Your task to perform on an android device: What's the weather? Image 0: 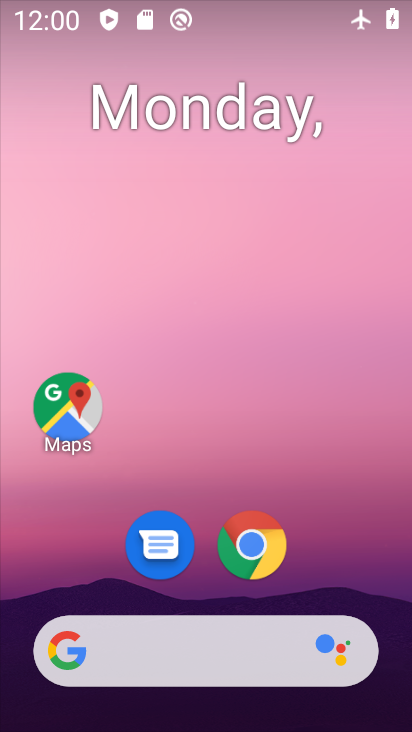
Step 0: click (223, 647)
Your task to perform on an android device: What's the weather? Image 1: 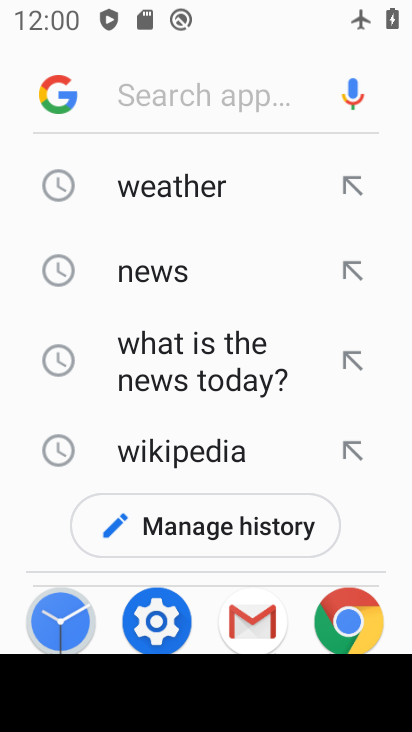
Step 1: click (196, 196)
Your task to perform on an android device: What's the weather? Image 2: 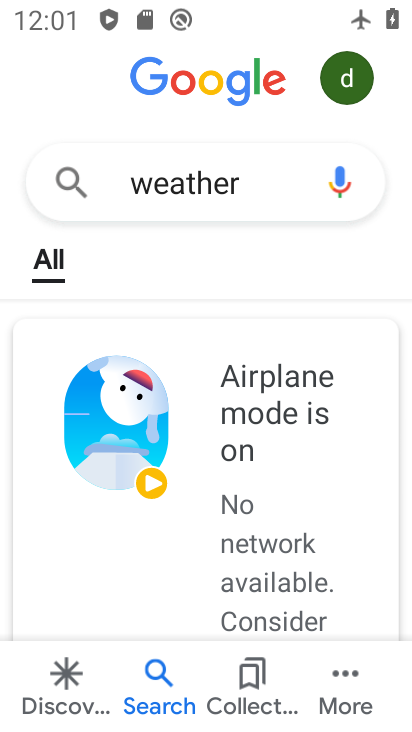
Step 2: task complete